Your task to perform on an android device: Open Chrome and go to settings Image 0: 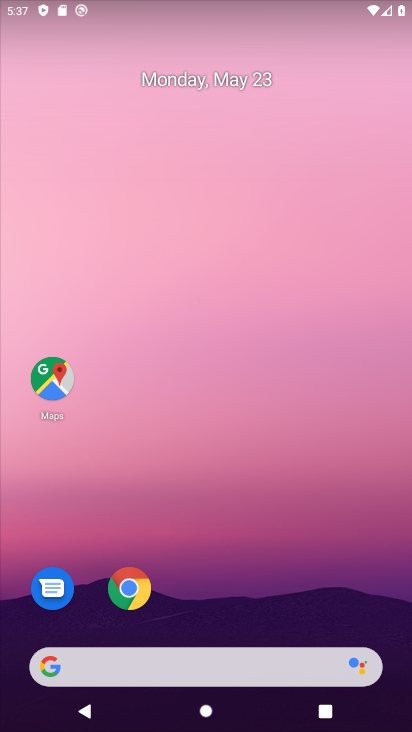
Step 0: drag from (196, 530) to (202, 40)
Your task to perform on an android device: Open Chrome and go to settings Image 1: 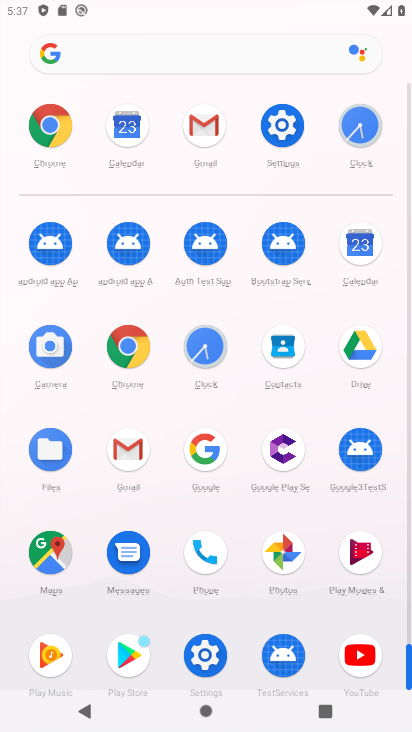
Step 1: drag from (7, 528) to (32, 132)
Your task to perform on an android device: Open Chrome and go to settings Image 2: 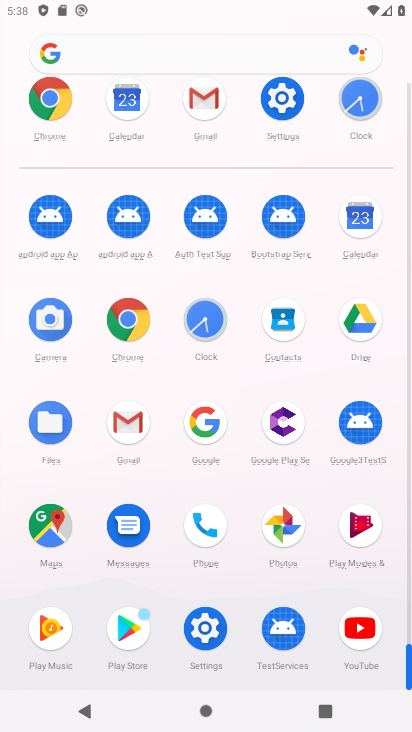
Step 2: click (126, 313)
Your task to perform on an android device: Open Chrome and go to settings Image 3: 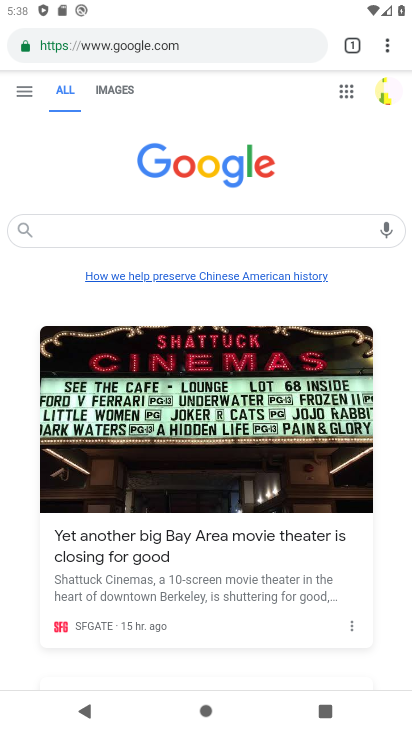
Step 3: task complete